Your task to perform on an android device: View the shopping cart on target.com. Image 0: 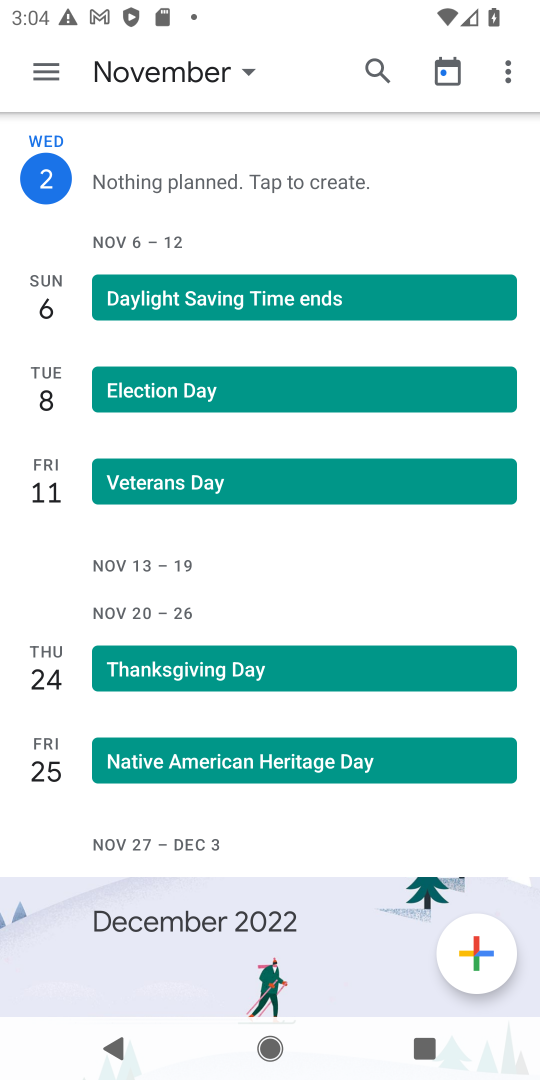
Step 0: press home button
Your task to perform on an android device: View the shopping cart on target.com. Image 1: 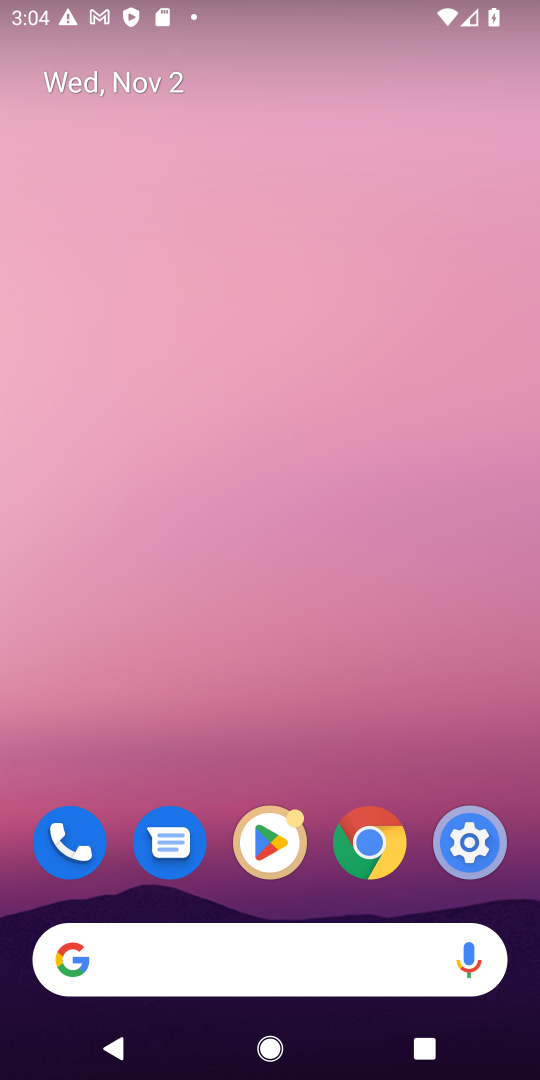
Step 1: click (386, 850)
Your task to perform on an android device: View the shopping cart on target.com. Image 2: 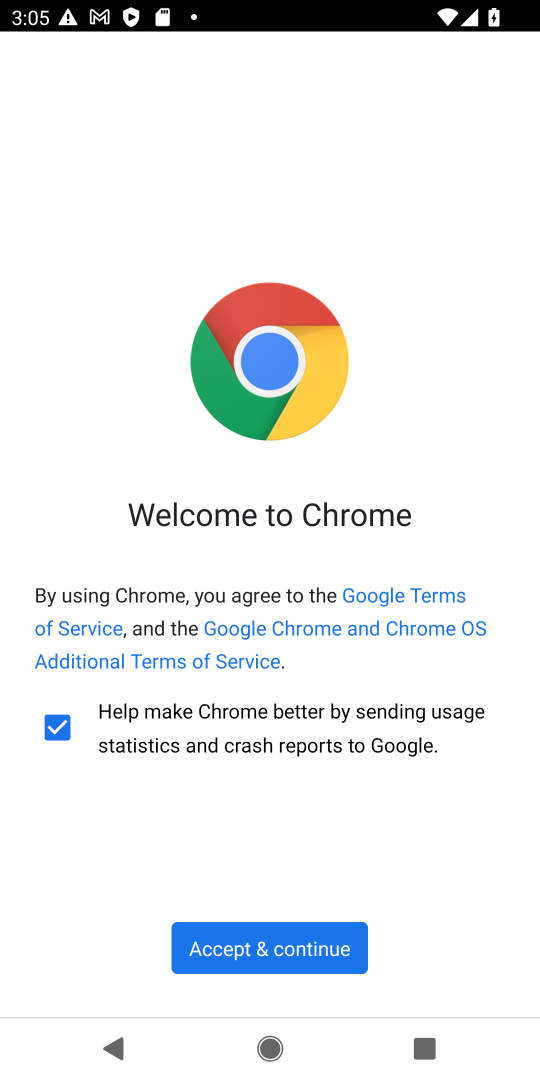
Step 2: click (241, 950)
Your task to perform on an android device: View the shopping cart on target.com. Image 3: 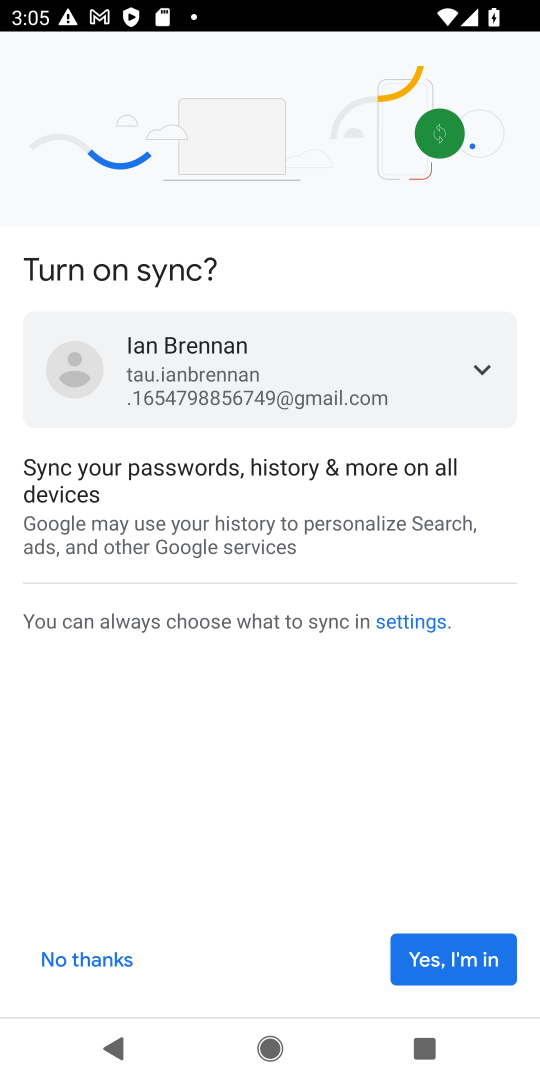
Step 3: click (62, 965)
Your task to perform on an android device: View the shopping cart on target.com. Image 4: 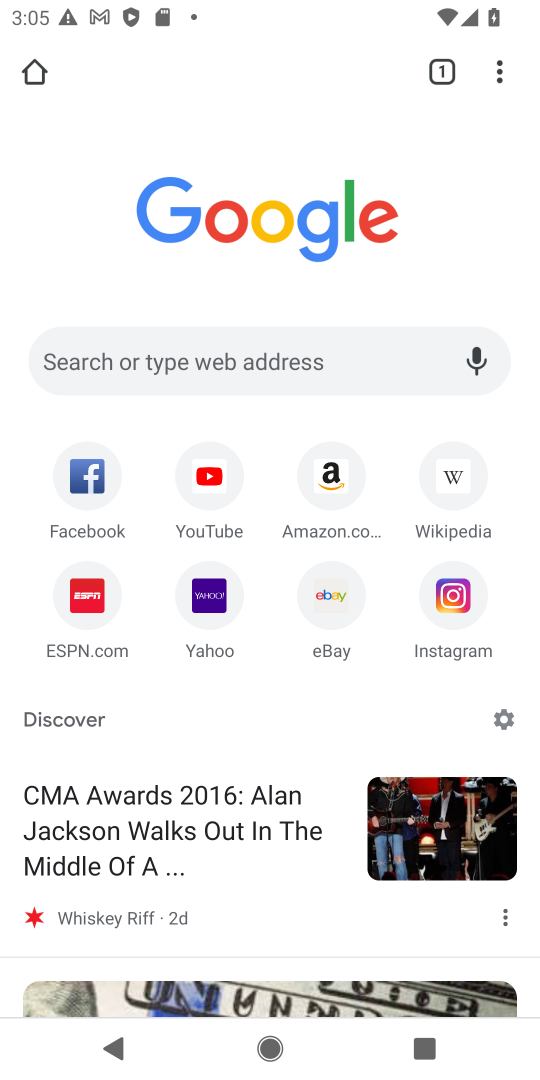
Step 4: click (255, 360)
Your task to perform on an android device: View the shopping cart on target.com. Image 5: 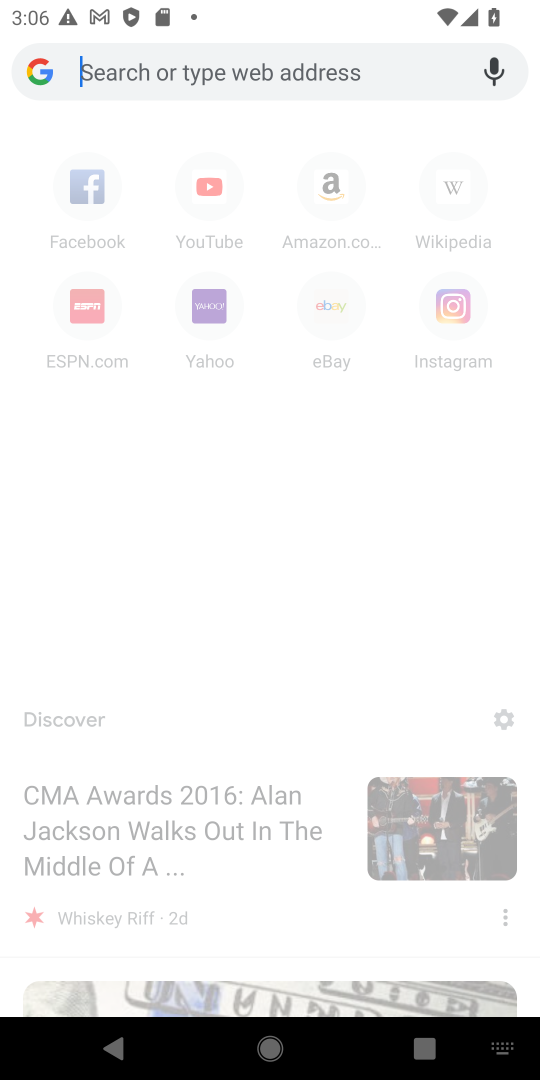
Step 5: type "target.com"
Your task to perform on an android device: View the shopping cart on target.com. Image 6: 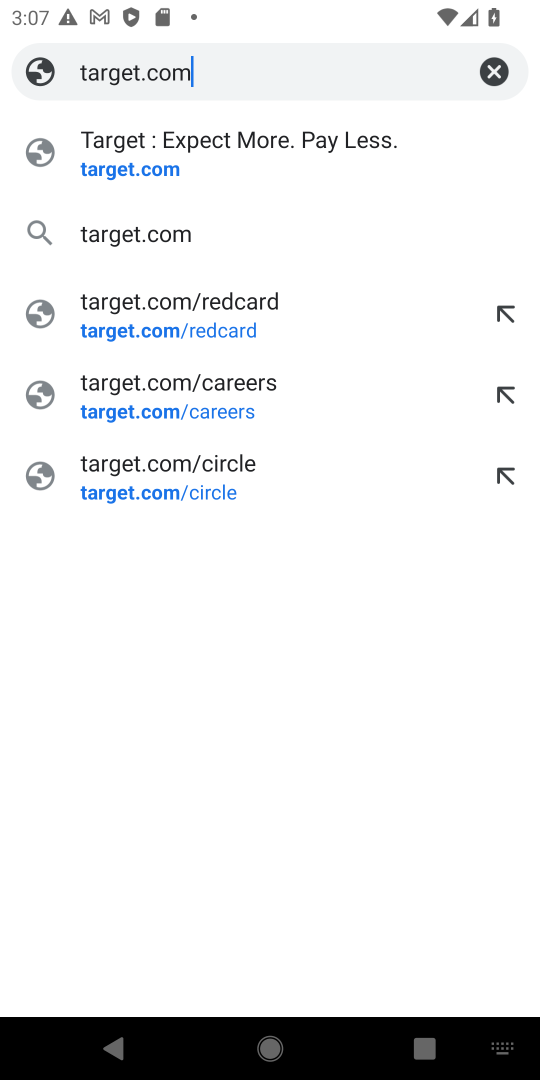
Step 6: click (243, 148)
Your task to perform on an android device: View the shopping cart on target.com. Image 7: 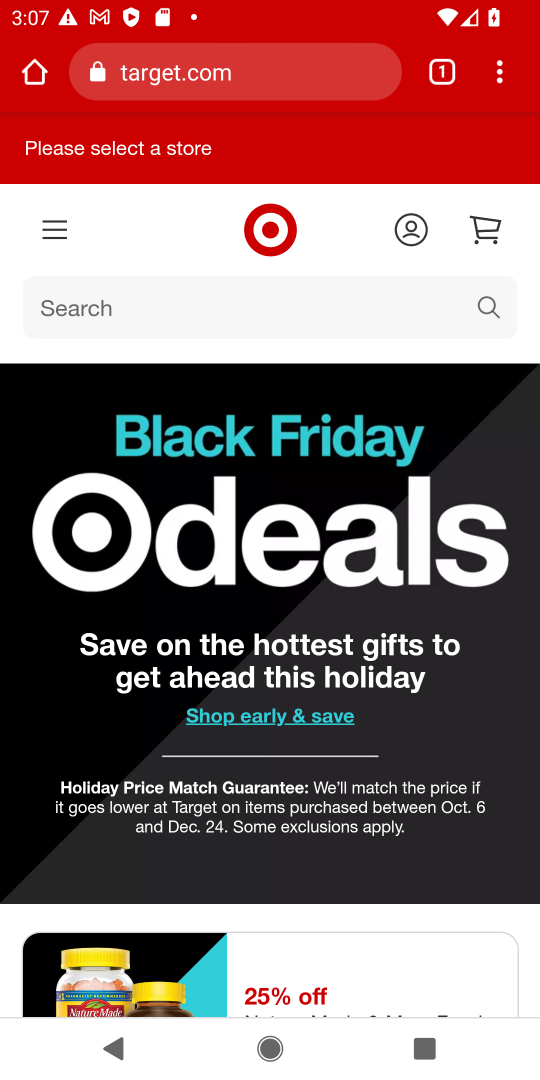
Step 7: drag from (292, 354) to (271, 3)
Your task to perform on an android device: View the shopping cart on target.com. Image 8: 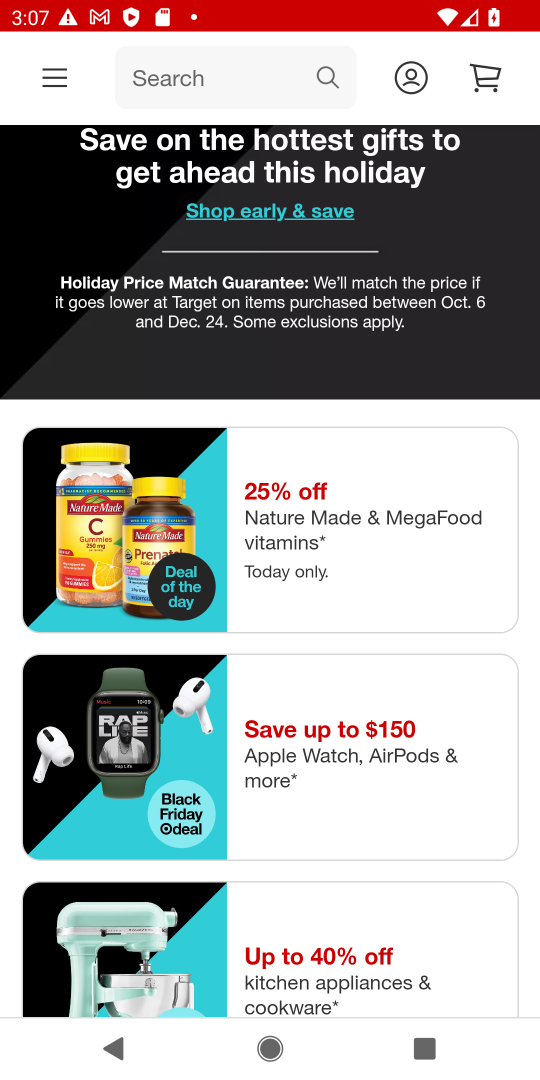
Step 8: drag from (388, 642) to (369, 286)
Your task to perform on an android device: View the shopping cart on target.com. Image 9: 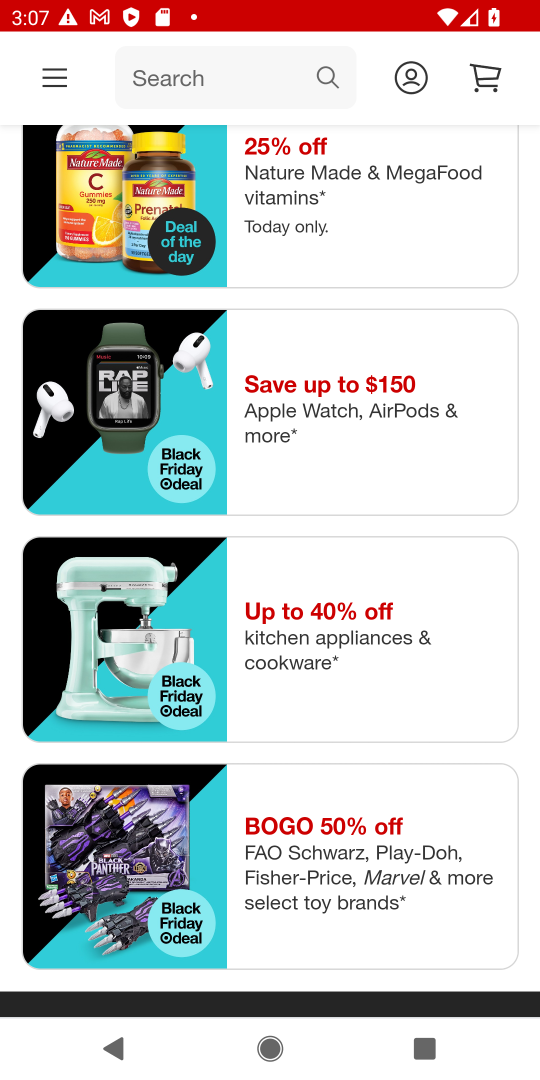
Step 9: drag from (401, 757) to (368, 418)
Your task to perform on an android device: View the shopping cart on target.com. Image 10: 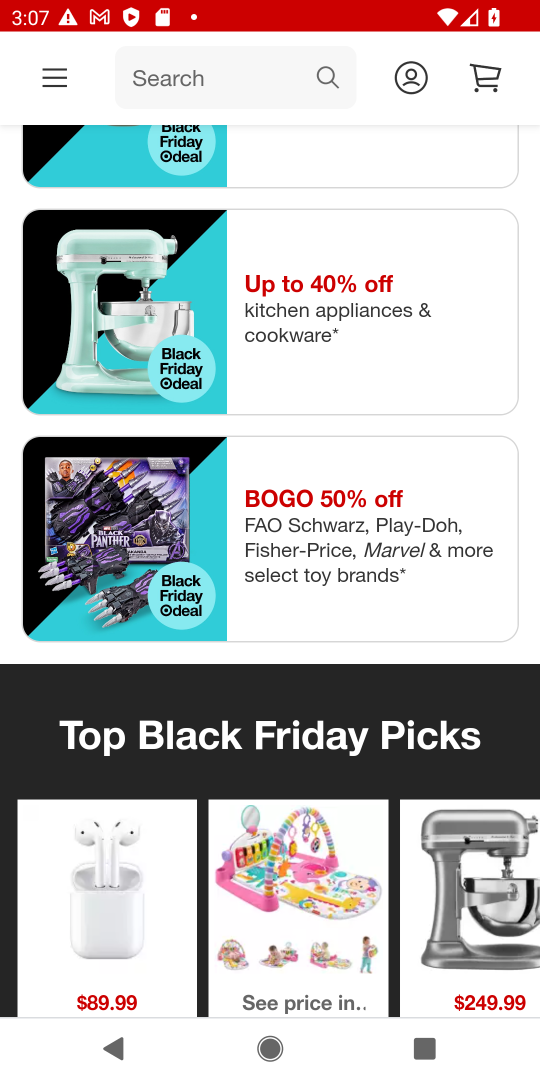
Step 10: drag from (372, 703) to (381, 1021)
Your task to perform on an android device: View the shopping cart on target.com. Image 11: 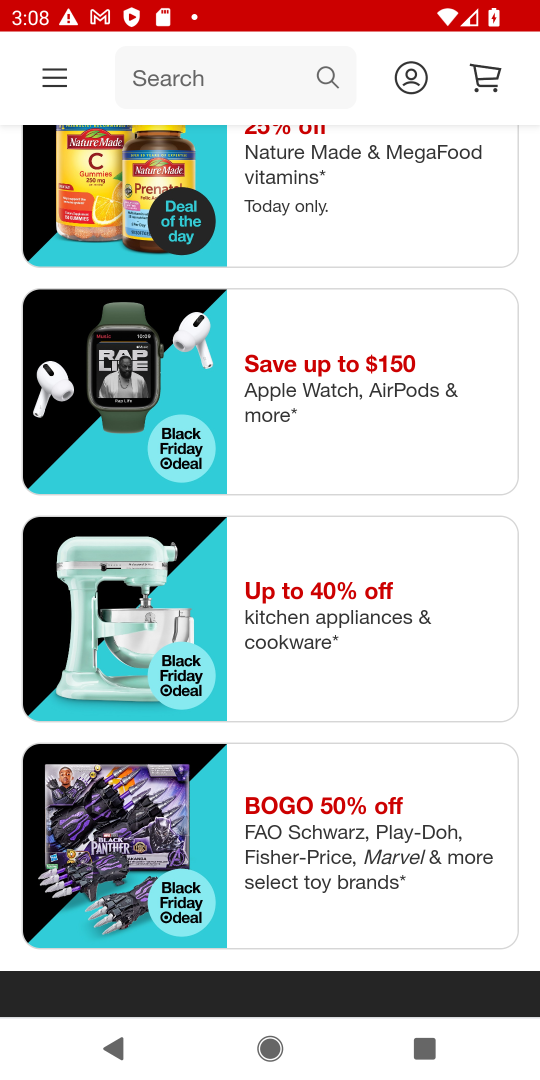
Step 11: click (486, 83)
Your task to perform on an android device: View the shopping cart on target.com. Image 12: 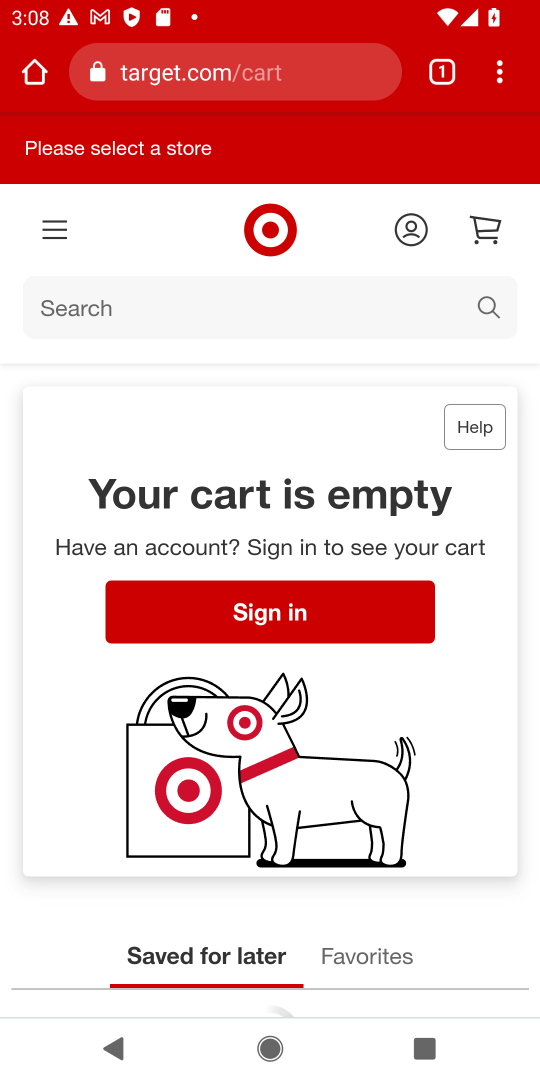
Step 12: task complete